Your task to perform on an android device: Open calendar and show me the first week of next month Image 0: 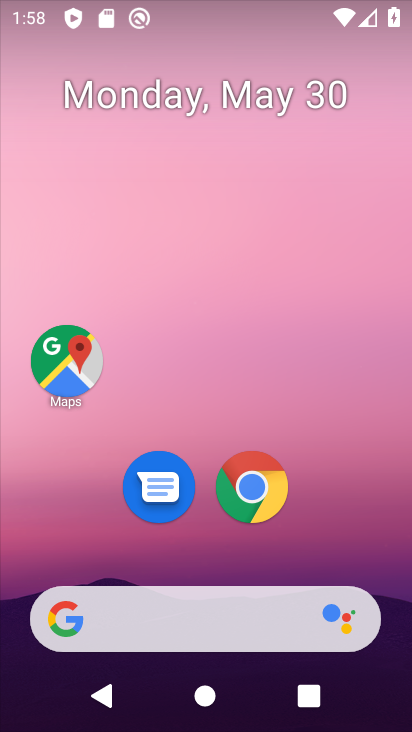
Step 0: drag from (319, 558) to (205, 145)
Your task to perform on an android device: Open calendar and show me the first week of next month Image 1: 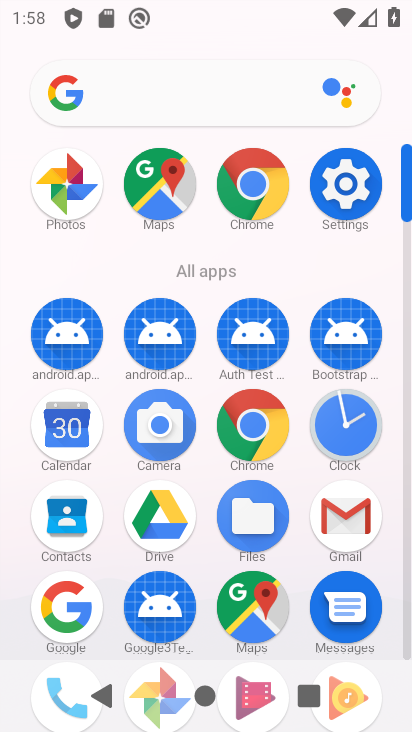
Step 1: drag from (303, 602) to (295, 225)
Your task to perform on an android device: Open calendar and show me the first week of next month Image 2: 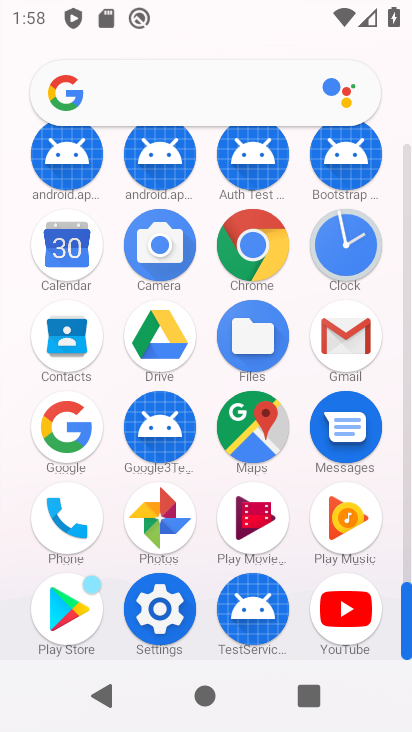
Step 2: drag from (296, 235) to (255, 722)
Your task to perform on an android device: Open calendar and show me the first week of next month Image 3: 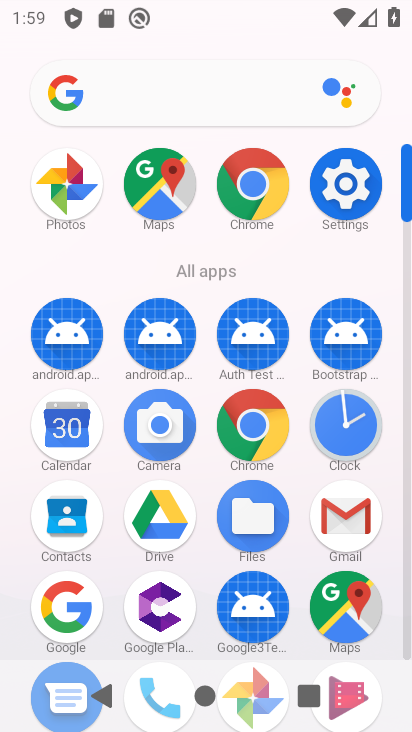
Step 3: click (75, 433)
Your task to perform on an android device: Open calendar and show me the first week of next month Image 4: 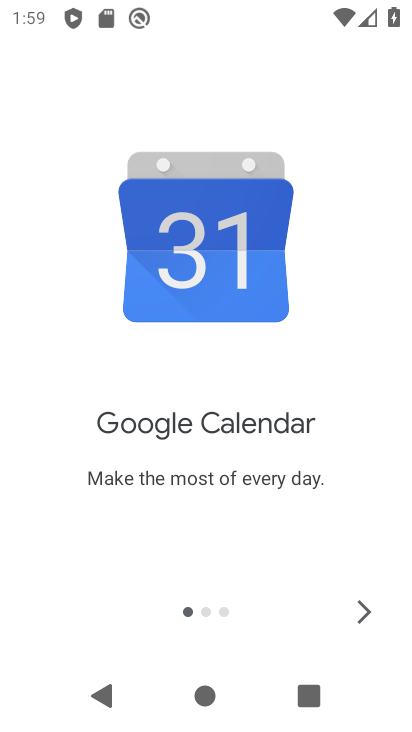
Step 4: click (372, 615)
Your task to perform on an android device: Open calendar and show me the first week of next month Image 5: 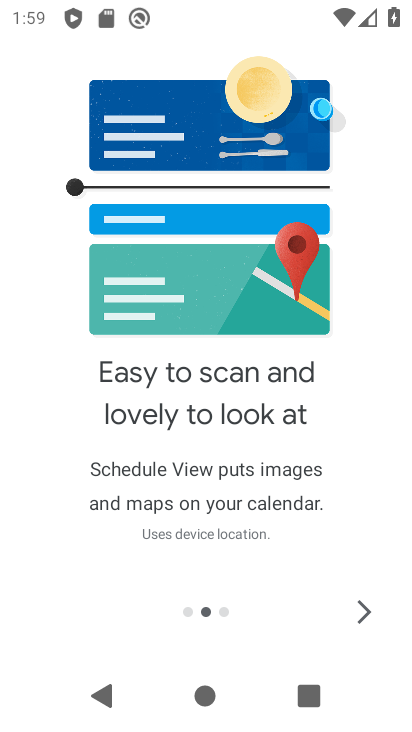
Step 5: click (372, 615)
Your task to perform on an android device: Open calendar and show me the first week of next month Image 6: 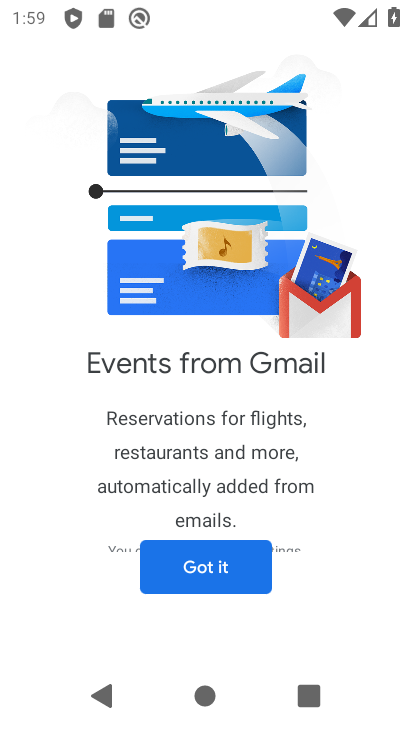
Step 6: click (232, 575)
Your task to perform on an android device: Open calendar and show me the first week of next month Image 7: 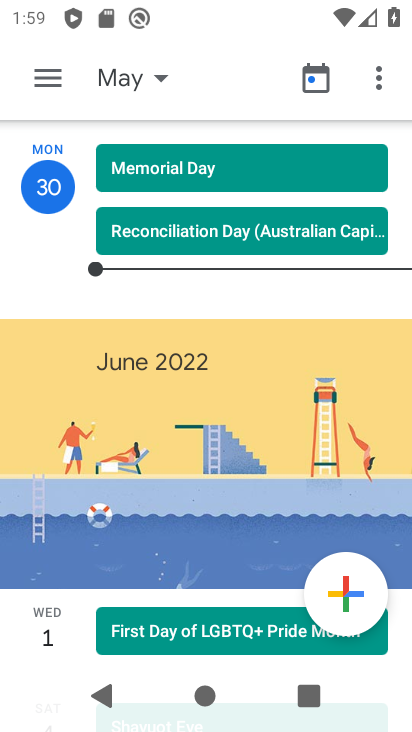
Step 7: click (44, 78)
Your task to perform on an android device: Open calendar and show me the first week of next month Image 8: 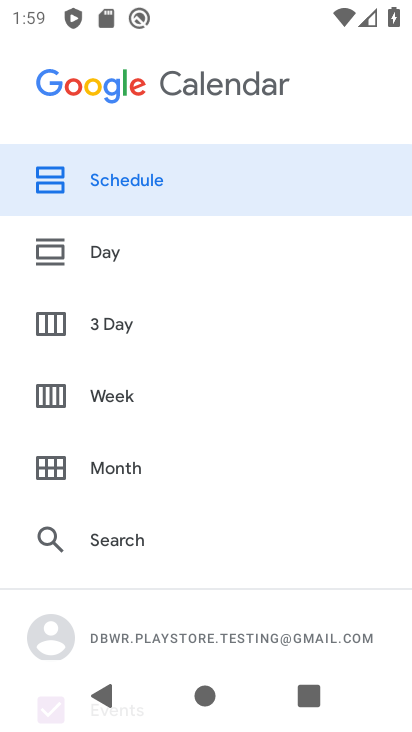
Step 8: click (106, 399)
Your task to perform on an android device: Open calendar and show me the first week of next month Image 9: 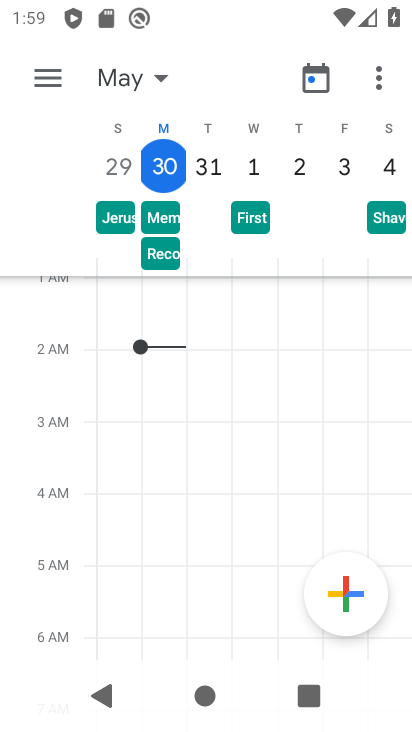
Step 9: click (135, 88)
Your task to perform on an android device: Open calendar and show me the first week of next month Image 10: 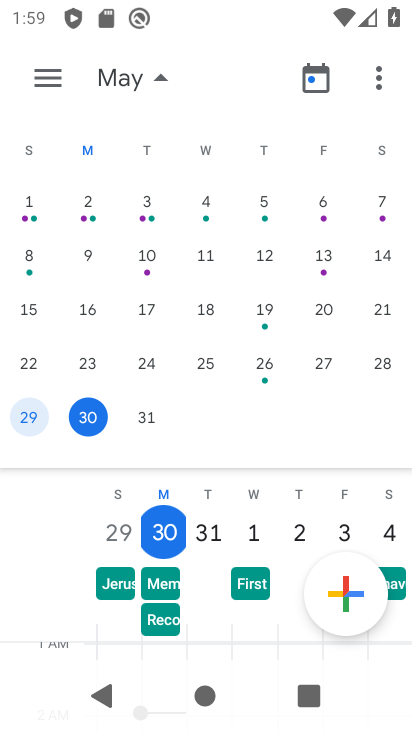
Step 10: drag from (255, 284) to (8, 318)
Your task to perform on an android device: Open calendar and show me the first week of next month Image 11: 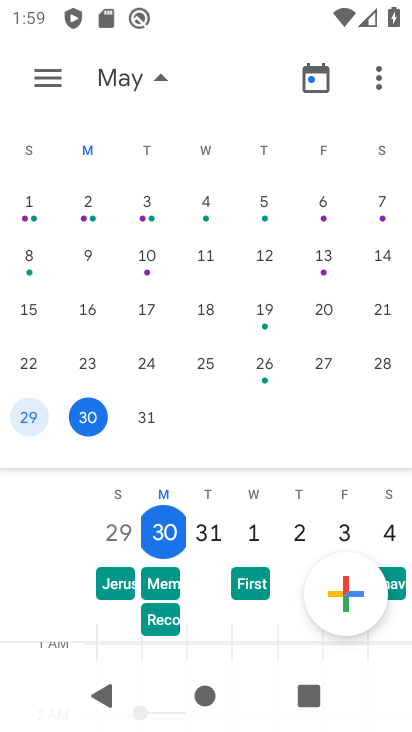
Step 11: drag from (328, 311) to (17, 307)
Your task to perform on an android device: Open calendar and show me the first week of next month Image 12: 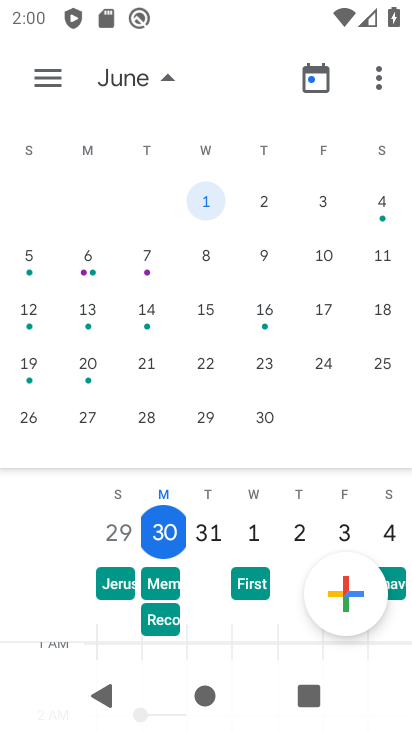
Step 12: click (29, 258)
Your task to perform on an android device: Open calendar and show me the first week of next month Image 13: 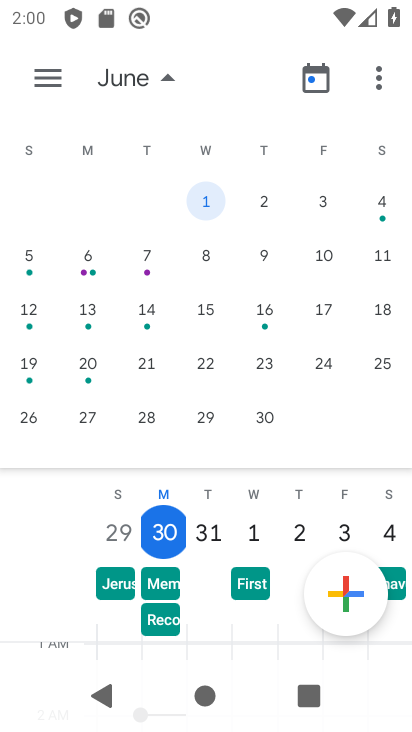
Step 13: click (34, 258)
Your task to perform on an android device: Open calendar and show me the first week of next month Image 14: 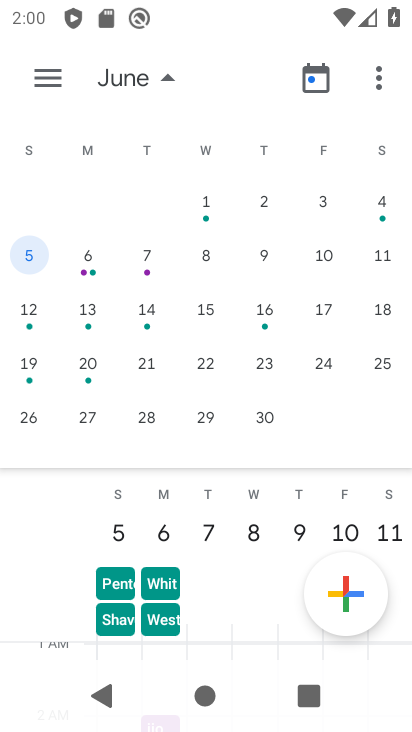
Step 14: task complete